Your task to perform on an android device: refresh tabs in the chrome app Image 0: 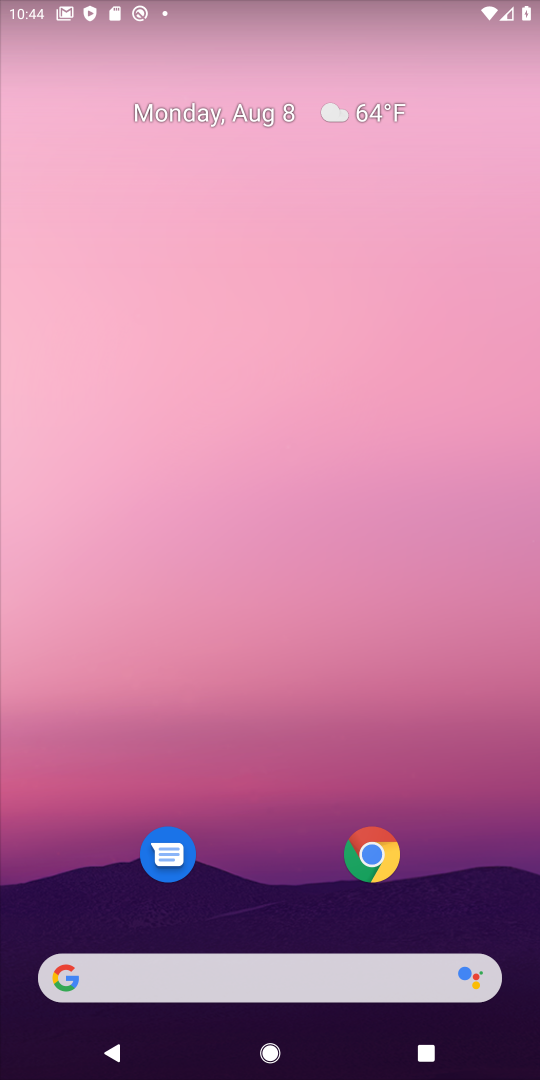
Step 0: click (382, 836)
Your task to perform on an android device: refresh tabs in the chrome app Image 1: 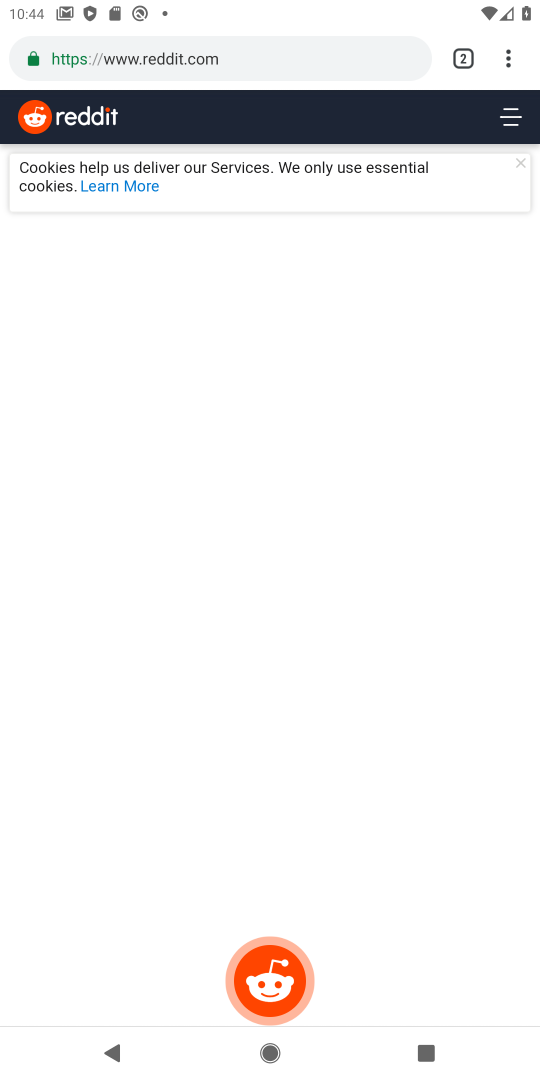
Step 1: click (508, 52)
Your task to perform on an android device: refresh tabs in the chrome app Image 2: 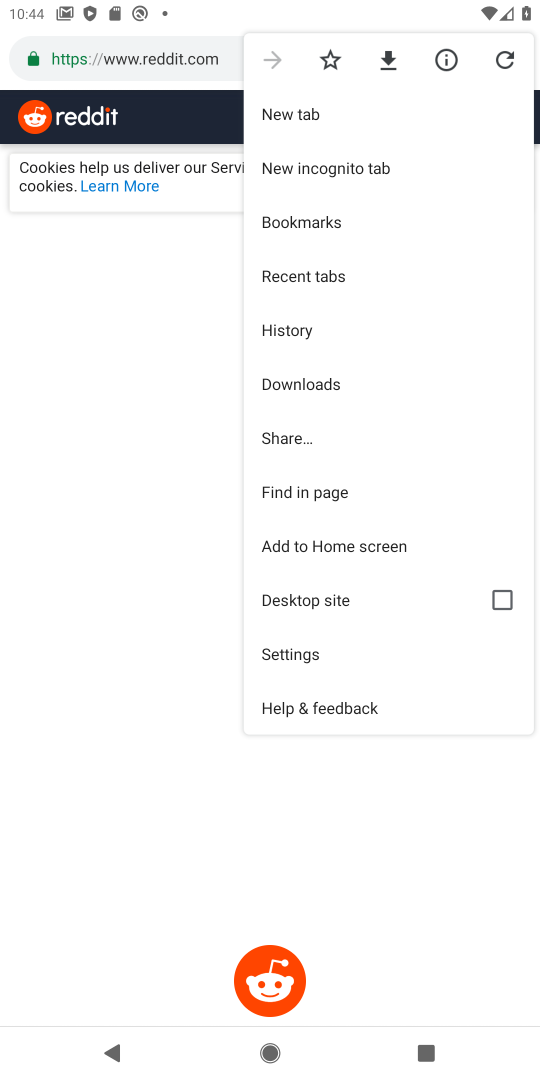
Step 2: click (508, 52)
Your task to perform on an android device: refresh tabs in the chrome app Image 3: 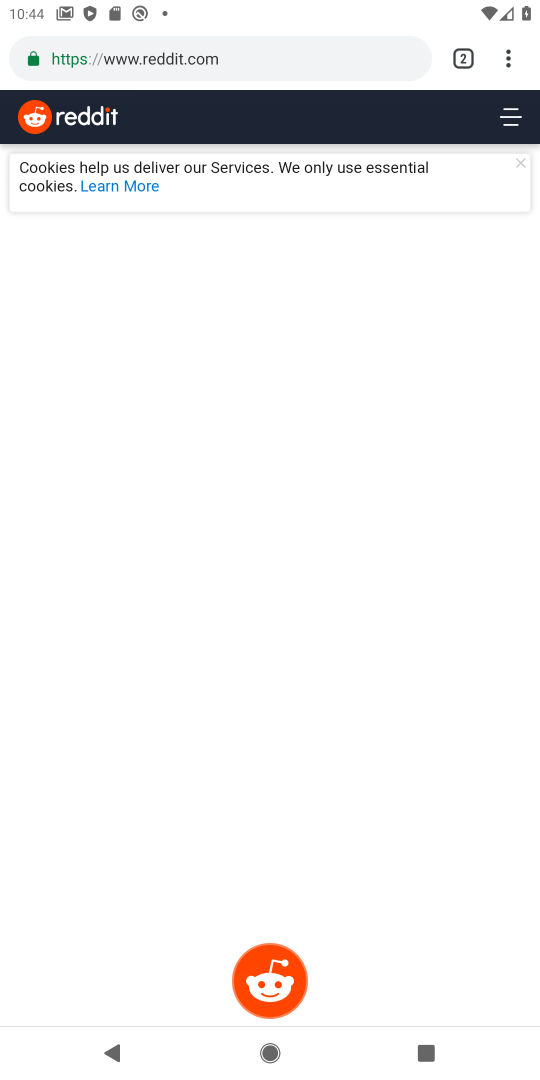
Step 3: task complete